Your task to perform on an android device: turn notification dots off Image 0: 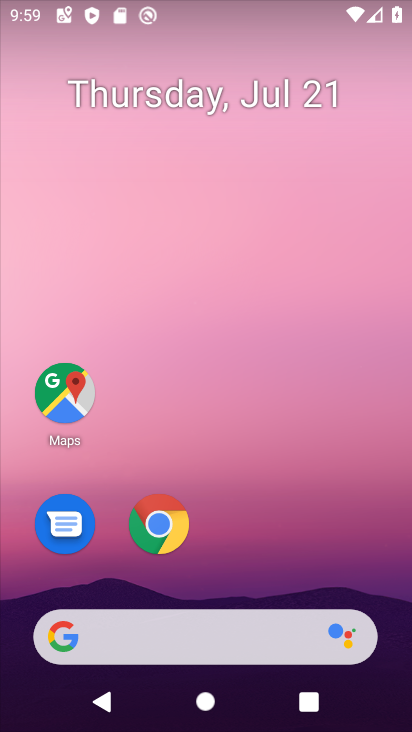
Step 0: drag from (159, 627) to (225, 175)
Your task to perform on an android device: turn notification dots off Image 1: 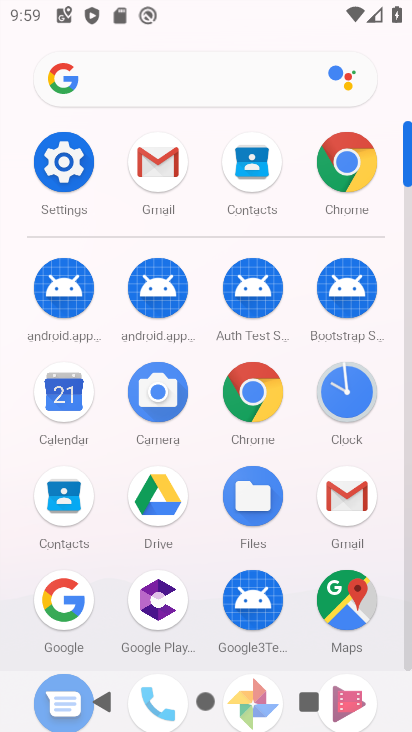
Step 1: click (69, 170)
Your task to perform on an android device: turn notification dots off Image 2: 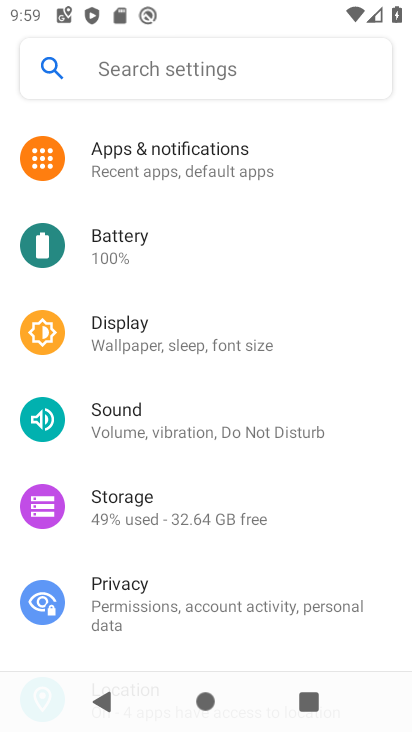
Step 2: click (158, 162)
Your task to perform on an android device: turn notification dots off Image 3: 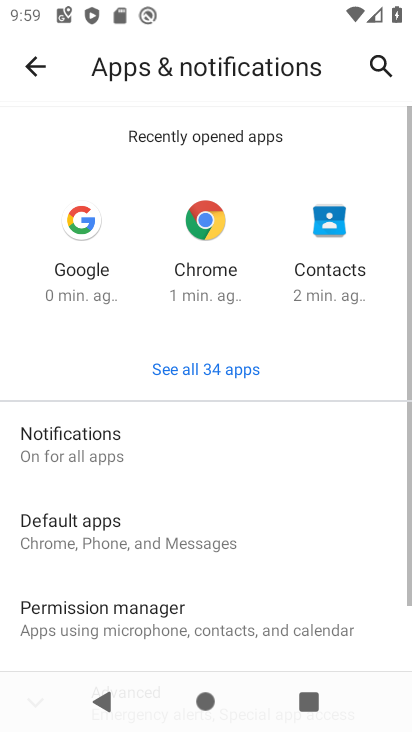
Step 3: click (109, 443)
Your task to perform on an android device: turn notification dots off Image 4: 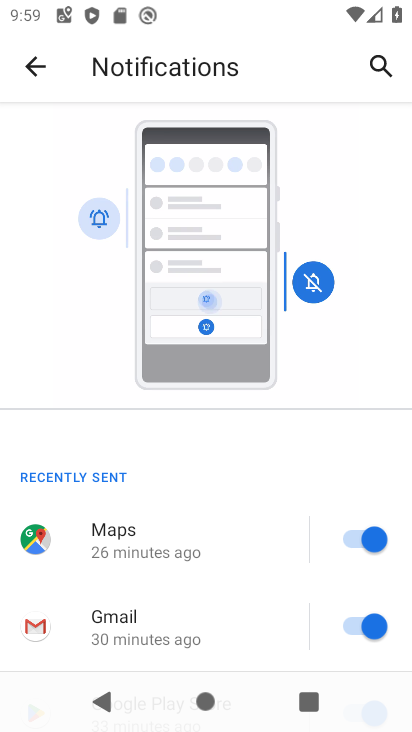
Step 4: drag from (159, 580) to (316, 113)
Your task to perform on an android device: turn notification dots off Image 5: 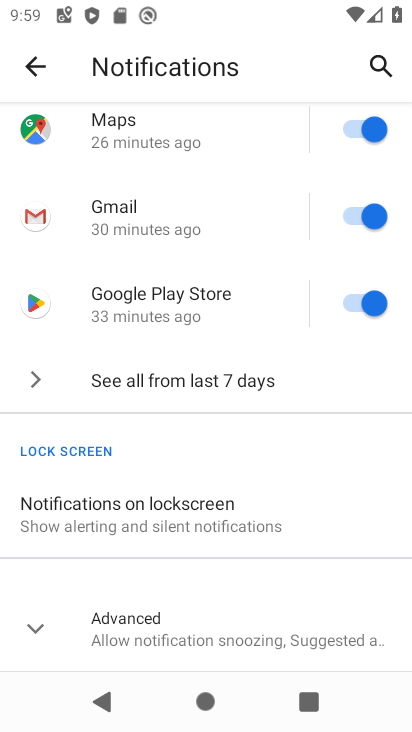
Step 5: click (164, 626)
Your task to perform on an android device: turn notification dots off Image 6: 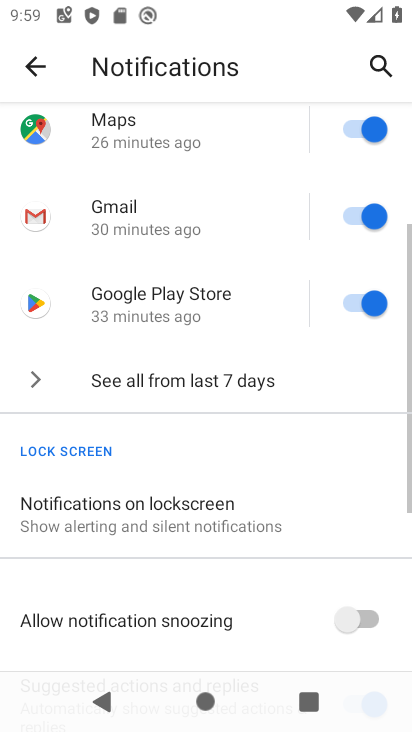
Step 6: drag from (175, 639) to (257, 207)
Your task to perform on an android device: turn notification dots off Image 7: 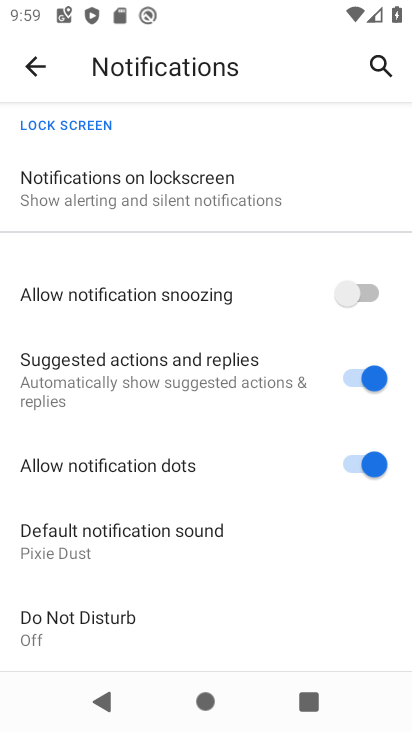
Step 7: click (354, 465)
Your task to perform on an android device: turn notification dots off Image 8: 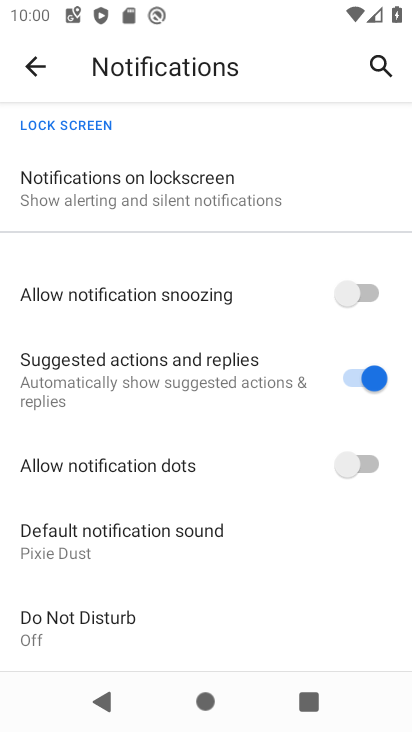
Step 8: task complete